Your task to perform on an android device: Search for vegetarian restaurants on Maps Image 0: 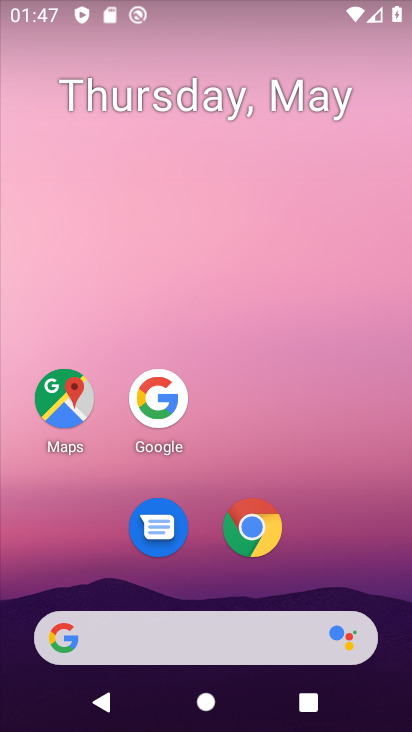
Step 0: drag from (218, 546) to (284, 95)
Your task to perform on an android device: Search for vegetarian restaurants on Maps Image 1: 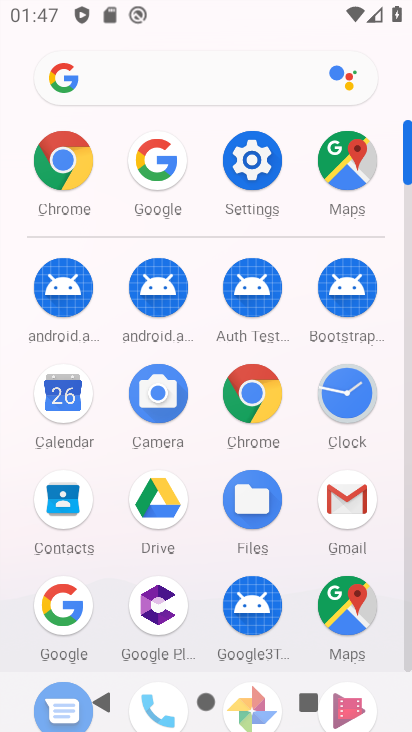
Step 1: click (337, 604)
Your task to perform on an android device: Search for vegetarian restaurants on Maps Image 2: 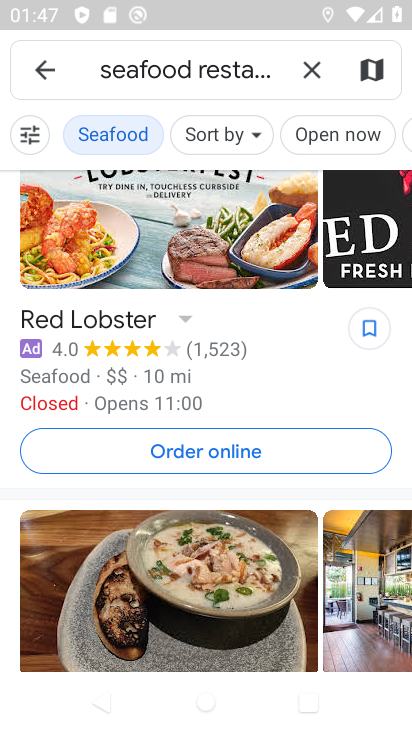
Step 2: click (315, 64)
Your task to perform on an android device: Search for vegetarian restaurants on Maps Image 3: 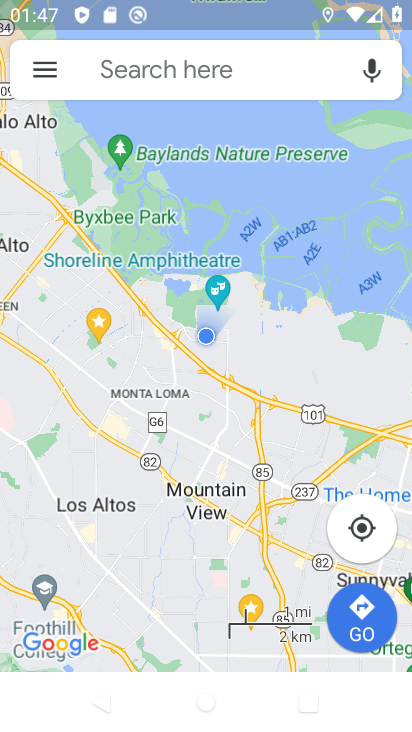
Step 3: click (191, 67)
Your task to perform on an android device: Search for vegetarian restaurants on Maps Image 4: 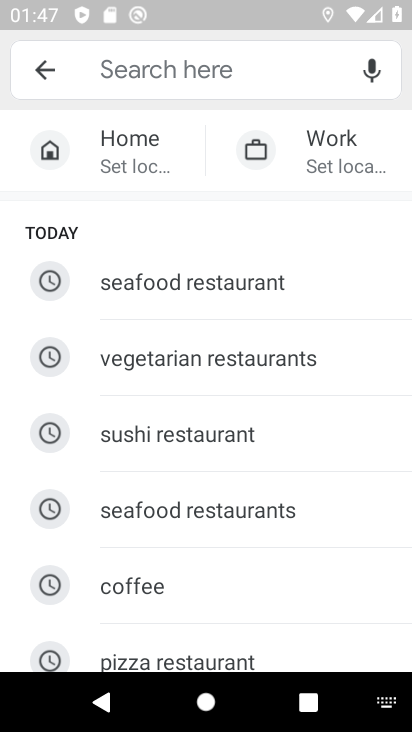
Step 4: click (166, 374)
Your task to perform on an android device: Search for vegetarian restaurants on Maps Image 5: 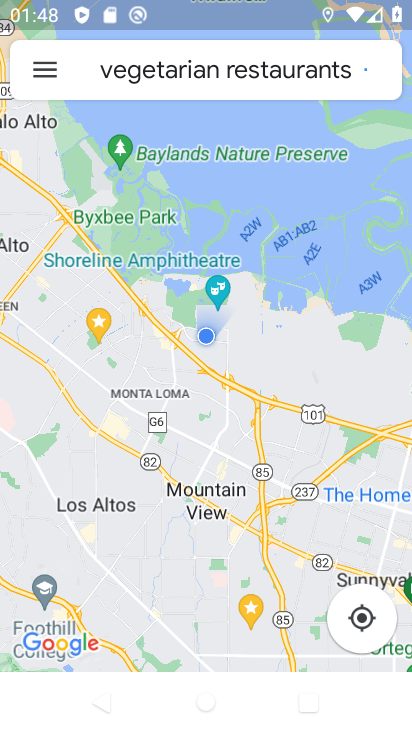
Step 5: task complete